Your task to perform on an android device: change the clock display to digital Image 0: 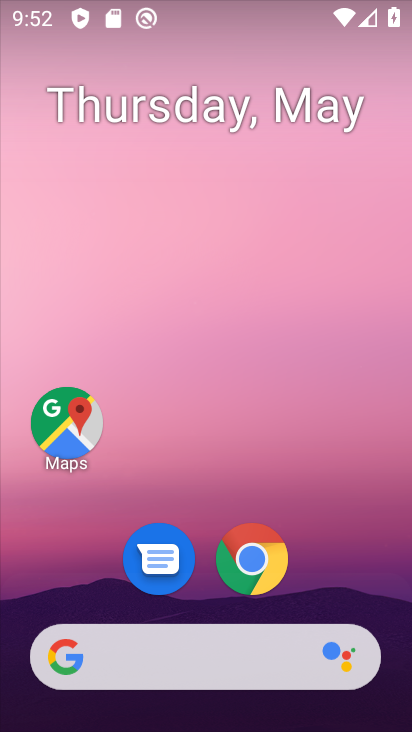
Step 0: drag from (356, 562) to (329, 84)
Your task to perform on an android device: change the clock display to digital Image 1: 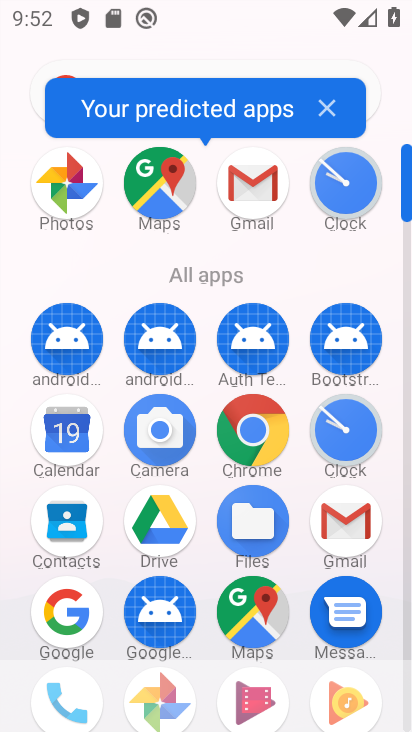
Step 1: click (337, 200)
Your task to perform on an android device: change the clock display to digital Image 2: 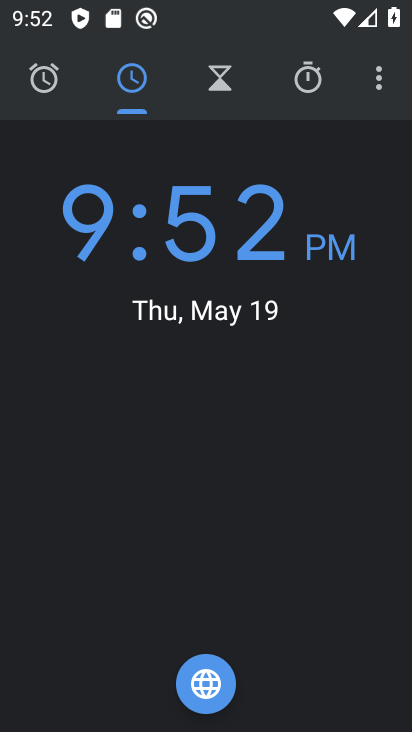
Step 2: click (376, 89)
Your task to perform on an android device: change the clock display to digital Image 3: 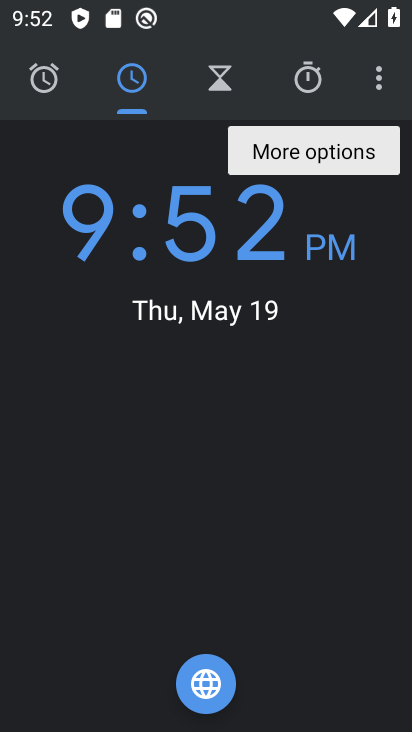
Step 3: click (376, 88)
Your task to perform on an android device: change the clock display to digital Image 4: 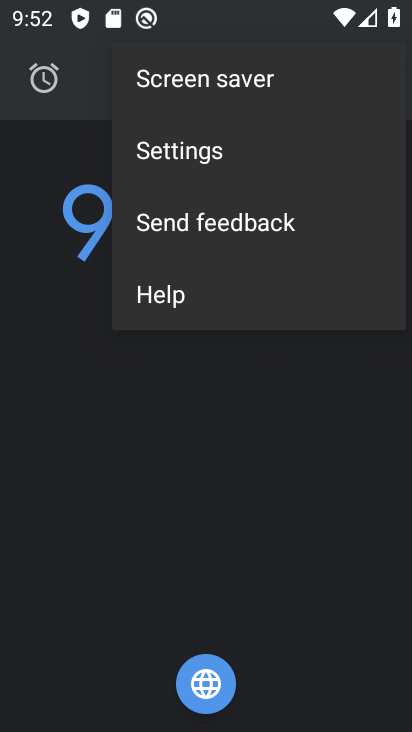
Step 4: click (201, 162)
Your task to perform on an android device: change the clock display to digital Image 5: 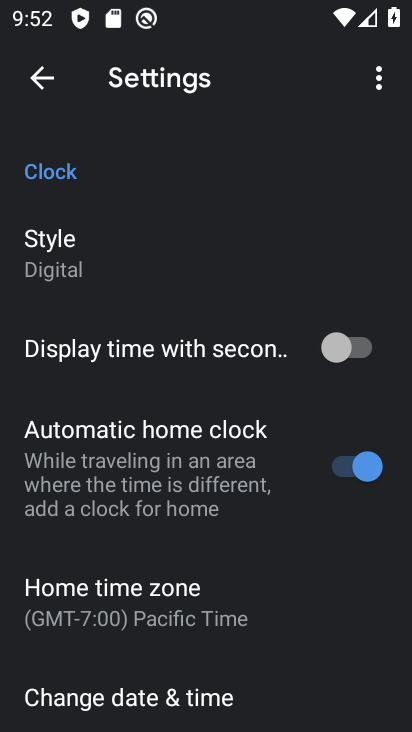
Step 5: click (48, 251)
Your task to perform on an android device: change the clock display to digital Image 6: 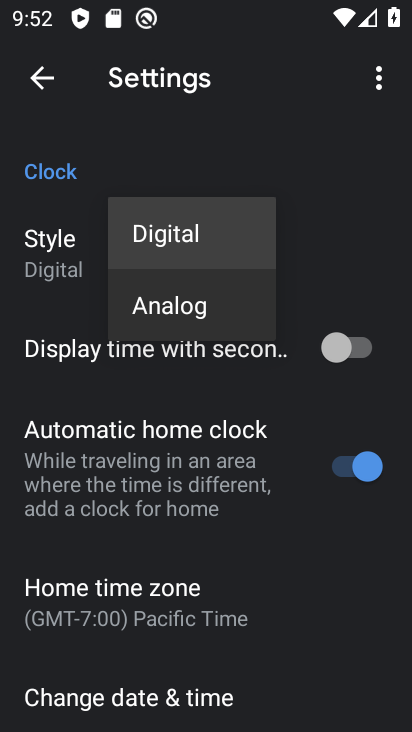
Step 6: click (164, 237)
Your task to perform on an android device: change the clock display to digital Image 7: 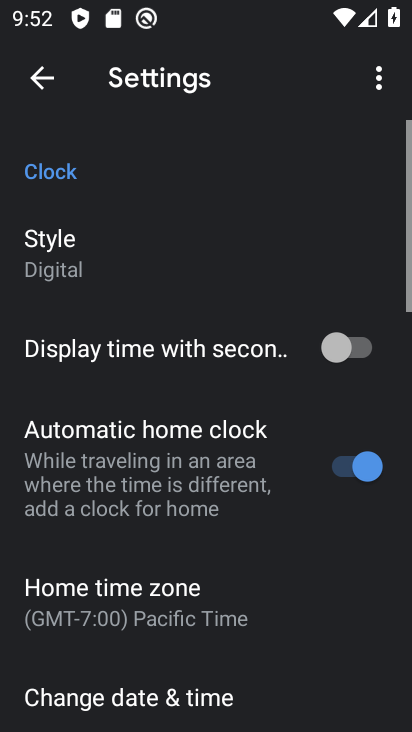
Step 7: task complete